Your task to perform on an android device: Open my contact list Image 0: 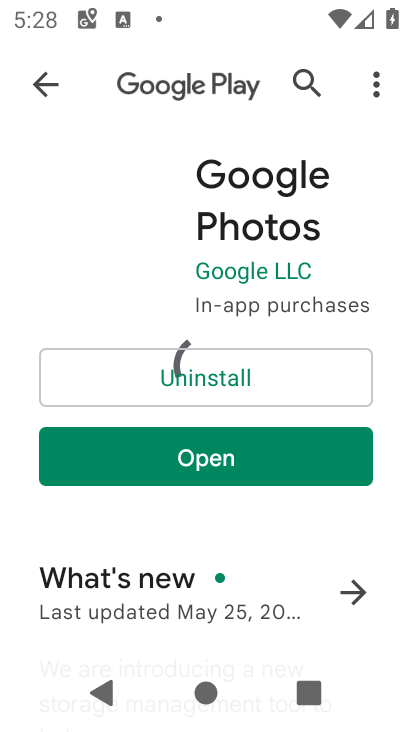
Step 0: click (267, 474)
Your task to perform on an android device: Open my contact list Image 1: 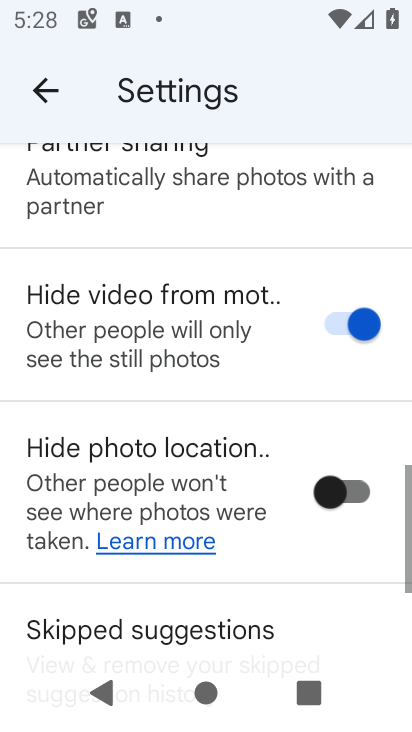
Step 1: press home button
Your task to perform on an android device: Open my contact list Image 2: 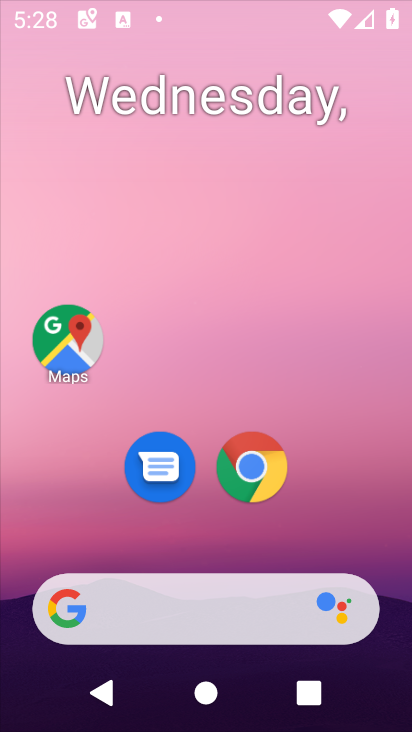
Step 2: drag from (327, 507) to (244, 25)
Your task to perform on an android device: Open my contact list Image 3: 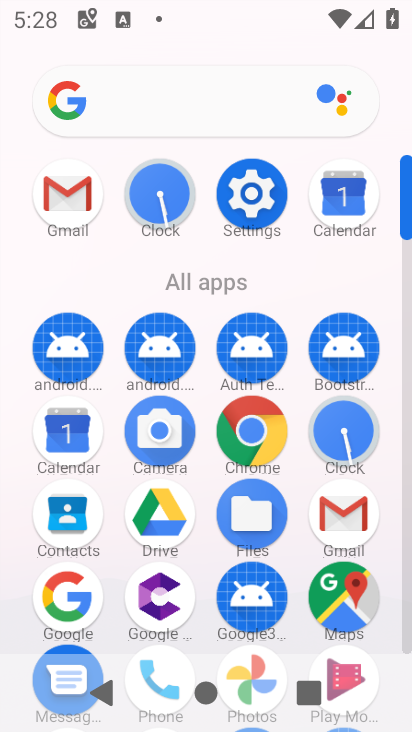
Step 3: click (80, 511)
Your task to perform on an android device: Open my contact list Image 4: 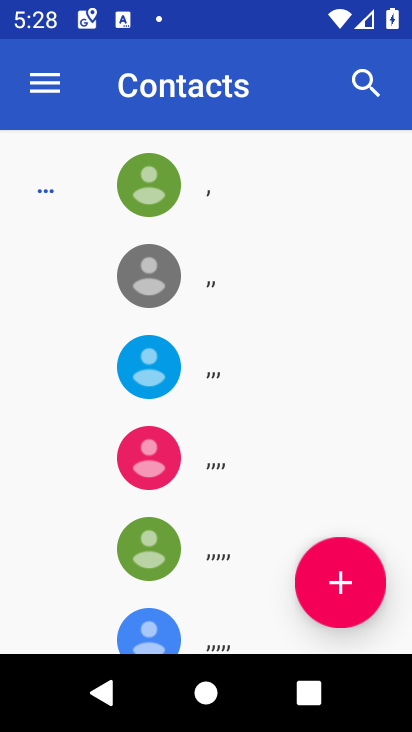
Step 4: task complete